Your task to perform on an android device: turn off javascript in the chrome app Image 0: 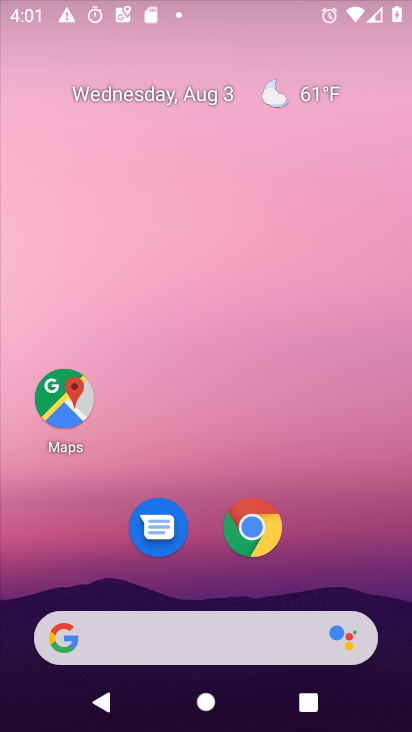
Step 0: drag from (361, 496) to (407, 67)
Your task to perform on an android device: turn off javascript in the chrome app Image 1: 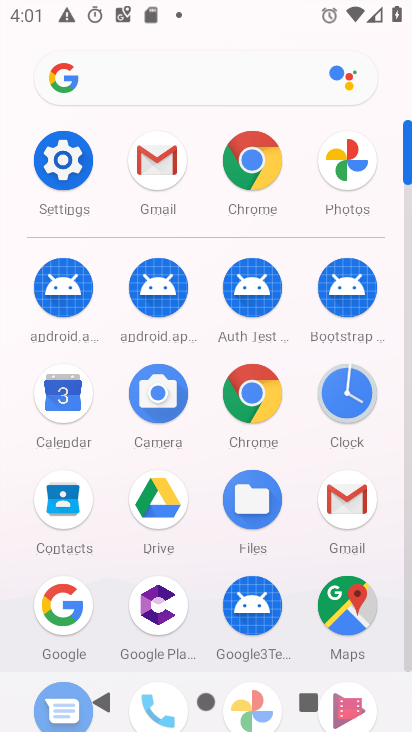
Step 1: click (257, 394)
Your task to perform on an android device: turn off javascript in the chrome app Image 2: 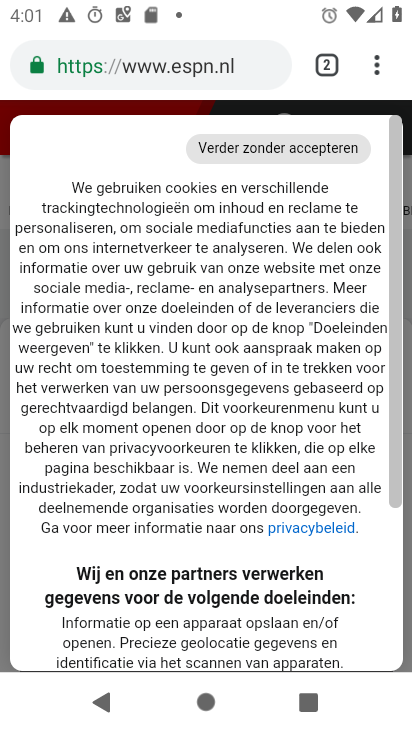
Step 2: drag from (383, 64) to (172, 582)
Your task to perform on an android device: turn off javascript in the chrome app Image 3: 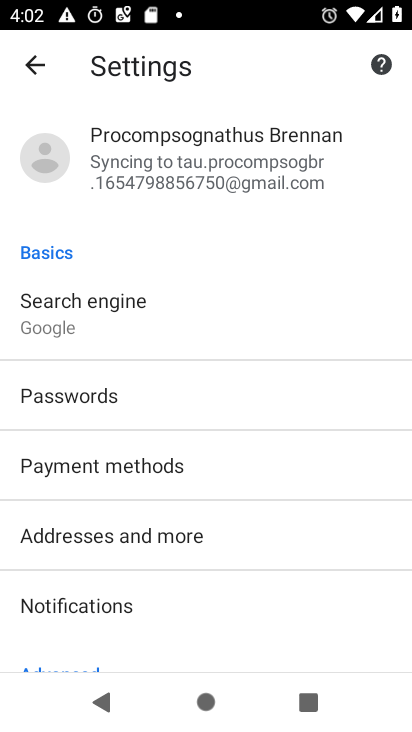
Step 3: drag from (196, 628) to (236, 183)
Your task to perform on an android device: turn off javascript in the chrome app Image 4: 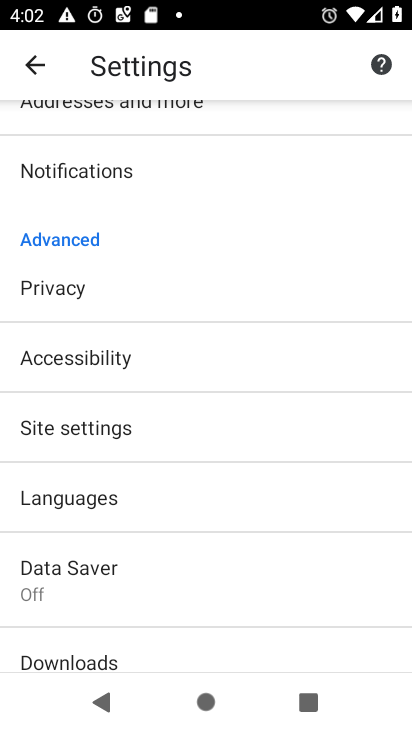
Step 4: drag from (286, 649) to (272, 243)
Your task to perform on an android device: turn off javascript in the chrome app Image 5: 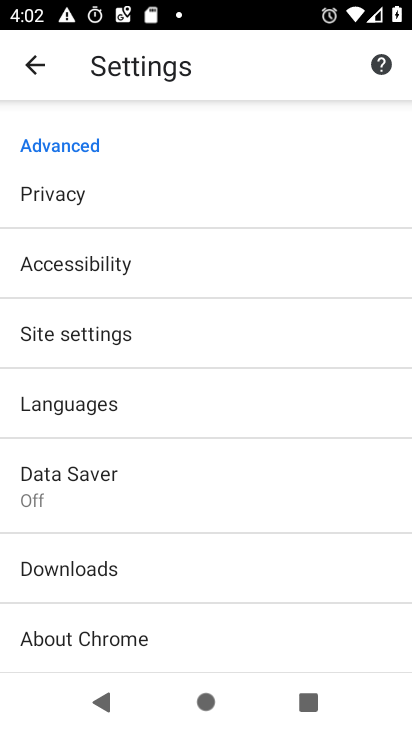
Step 5: click (107, 341)
Your task to perform on an android device: turn off javascript in the chrome app Image 6: 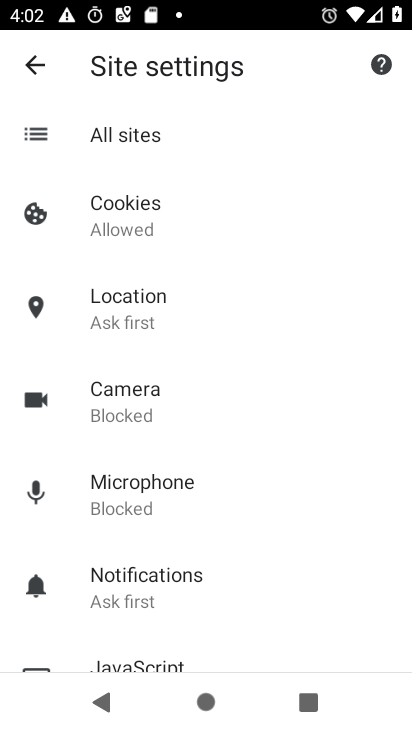
Step 6: drag from (279, 569) to (257, 232)
Your task to perform on an android device: turn off javascript in the chrome app Image 7: 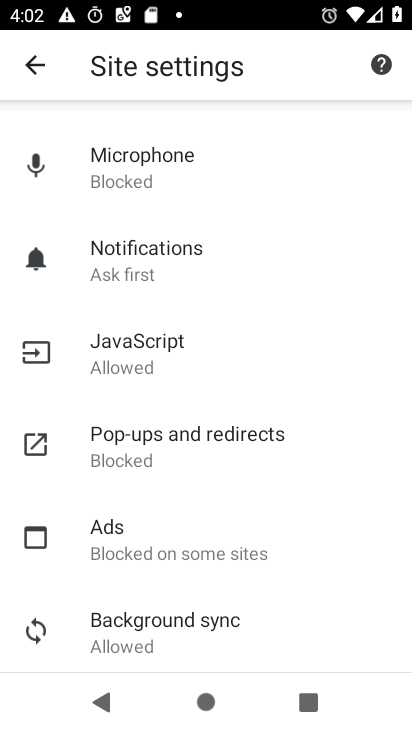
Step 7: click (111, 356)
Your task to perform on an android device: turn off javascript in the chrome app Image 8: 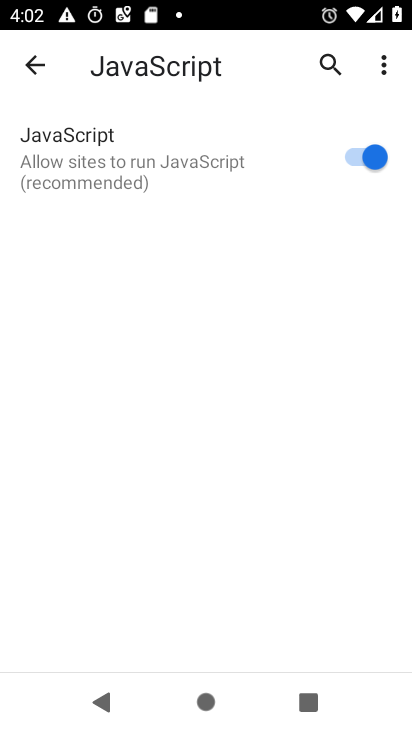
Step 8: click (363, 163)
Your task to perform on an android device: turn off javascript in the chrome app Image 9: 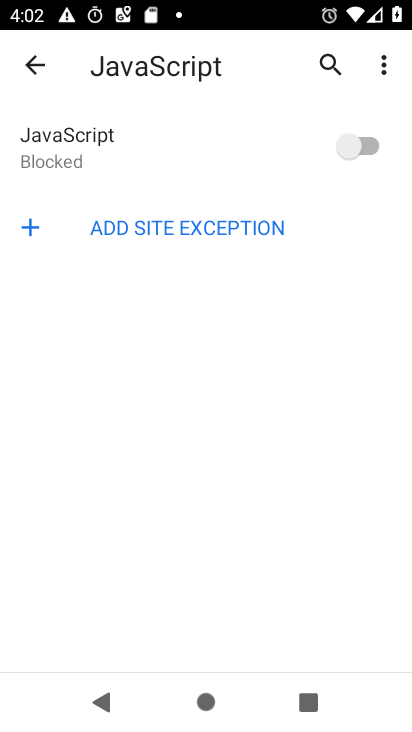
Step 9: task complete